Your task to perform on an android device: open app "Paramount+ | Peak Streaming" (install if not already installed) and enter user name: "fostered@yahoo.com" and password: "strong" Image 0: 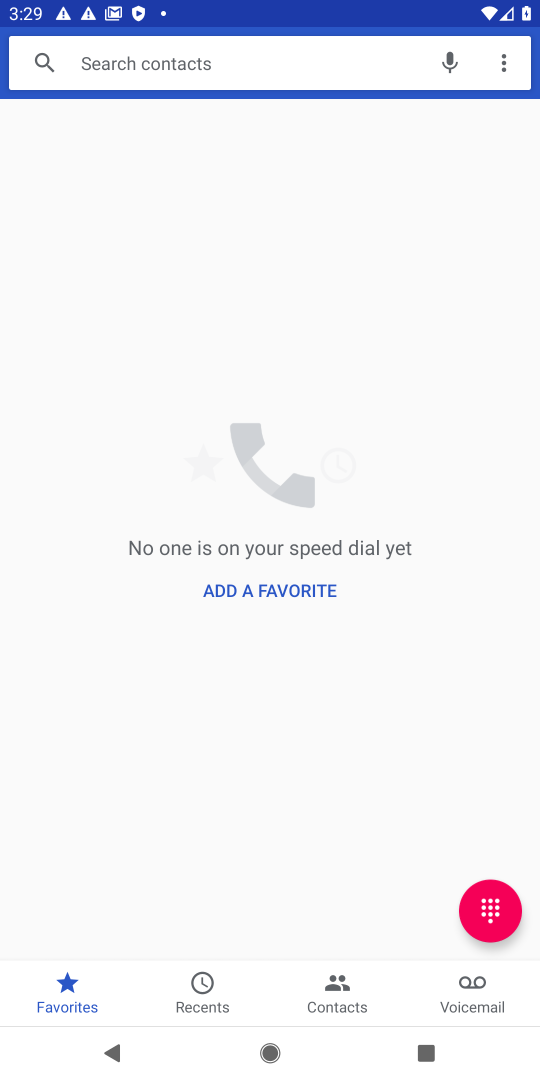
Step 0: press home button
Your task to perform on an android device: open app "Paramount+ | Peak Streaming" (install if not already installed) and enter user name: "fostered@yahoo.com" and password: "strong" Image 1: 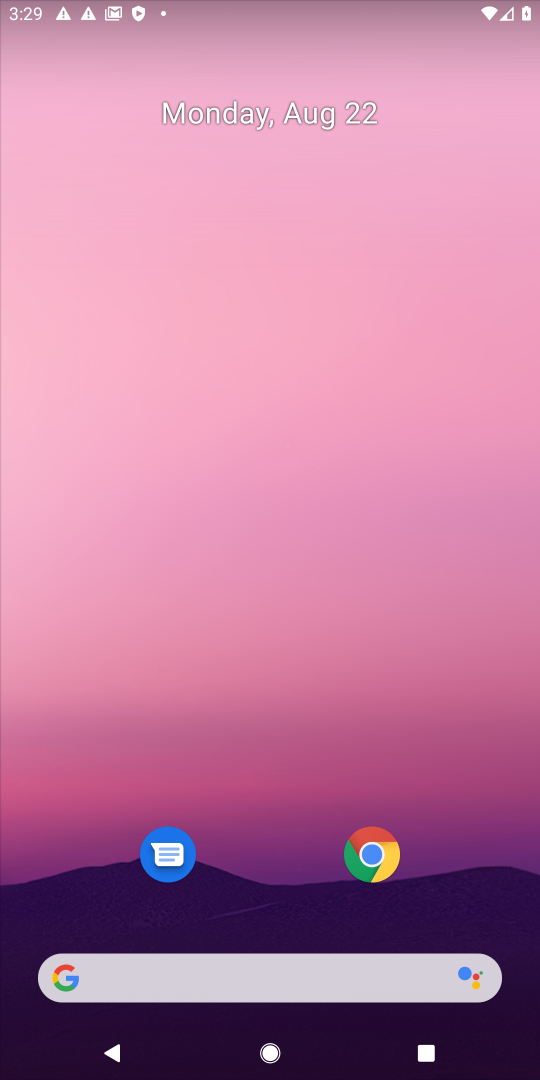
Step 1: drag from (274, 833) to (209, 55)
Your task to perform on an android device: open app "Paramount+ | Peak Streaming" (install if not already installed) and enter user name: "fostered@yahoo.com" and password: "strong" Image 2: 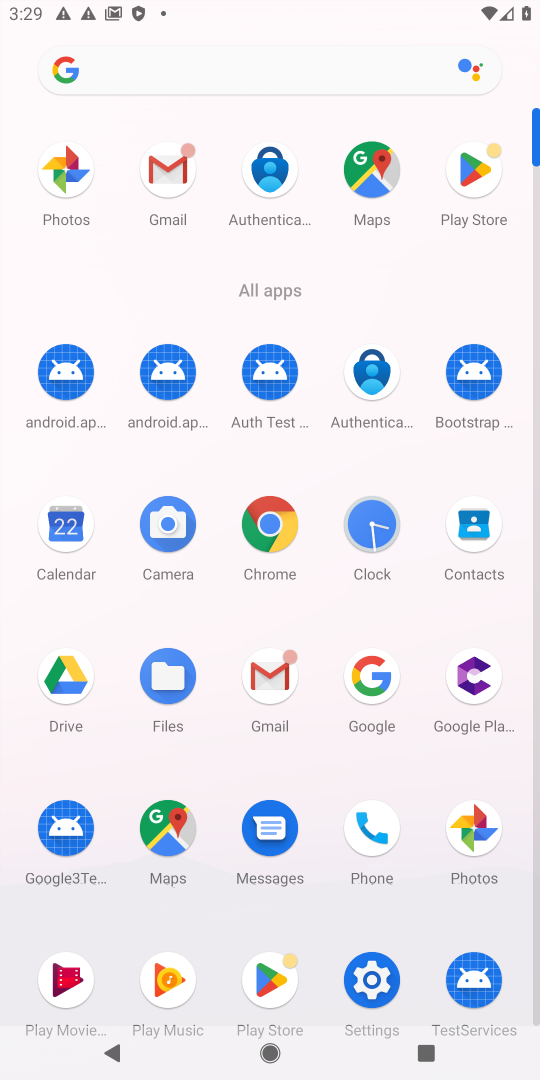
Step 2: click (475, 169)
Your task to perform on an android device: open app "Paramount+ | Peak Streaming" (install if not already installed) and enter user name: "fostered@yahoo.com" and password: "strong" Image 3: 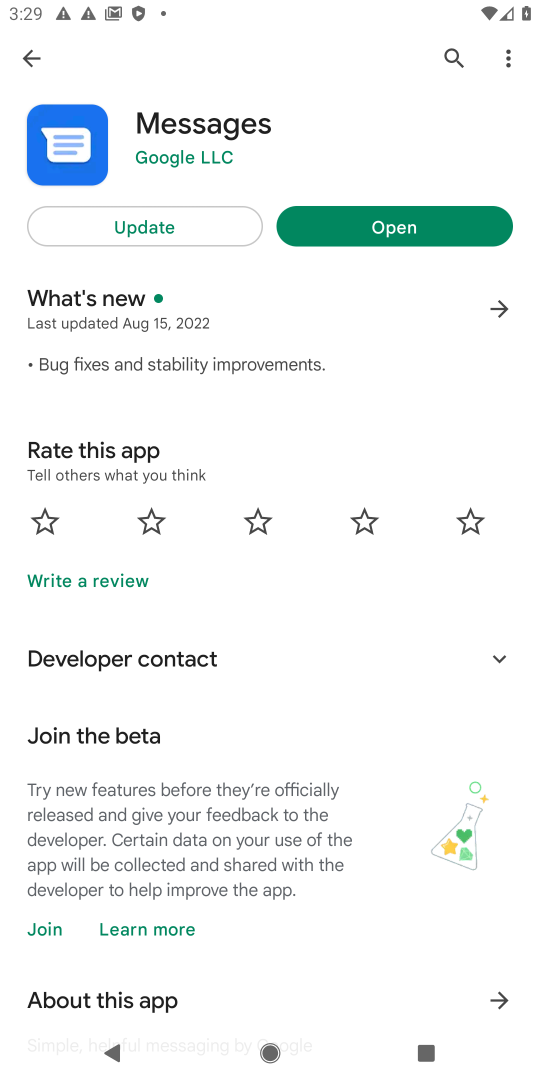
Step 3: click (448, 49)
Your task to perform on an android device: open app "Paramount+ | Peak Streaming" (install if not already installed) and enter user name: "fostered@yahoo.com" and password: "strong" Image 4: 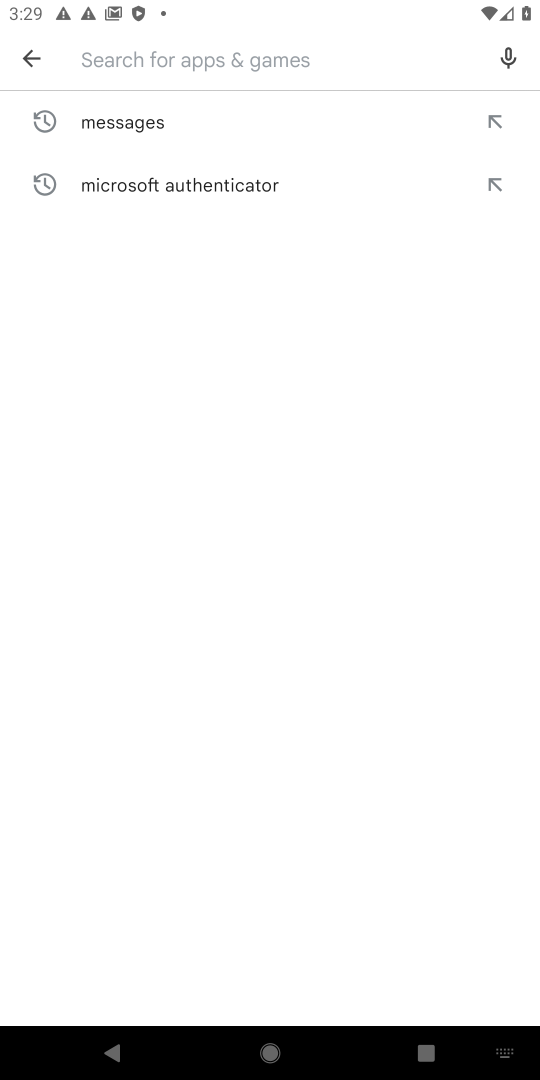
Step 4: type "Paramount+ | Peak Streaming"
Your task to perform on an android device: open app "Paramount+ | Peak Streaming" (install if not already installed) and enter user name: "fostered@yahoo.com" and password: "strong" Image 5: 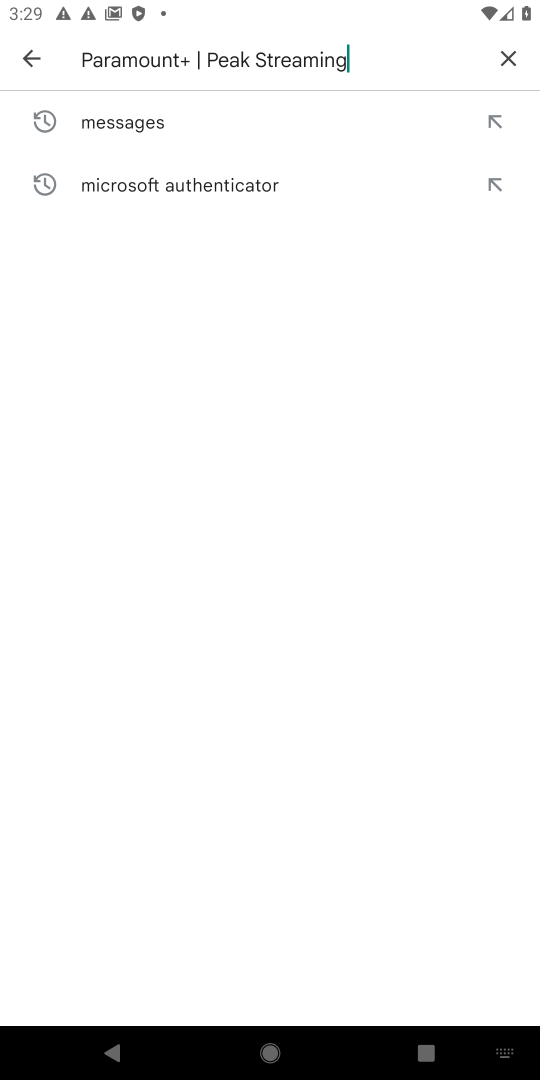
Step 5: type ""
Your task to perform on an android device: open app "Paramount+ | Peak Streaming" (install if not already installed) and enter user name: "fostered@yahoo.com" and password: "strong" Image 6: 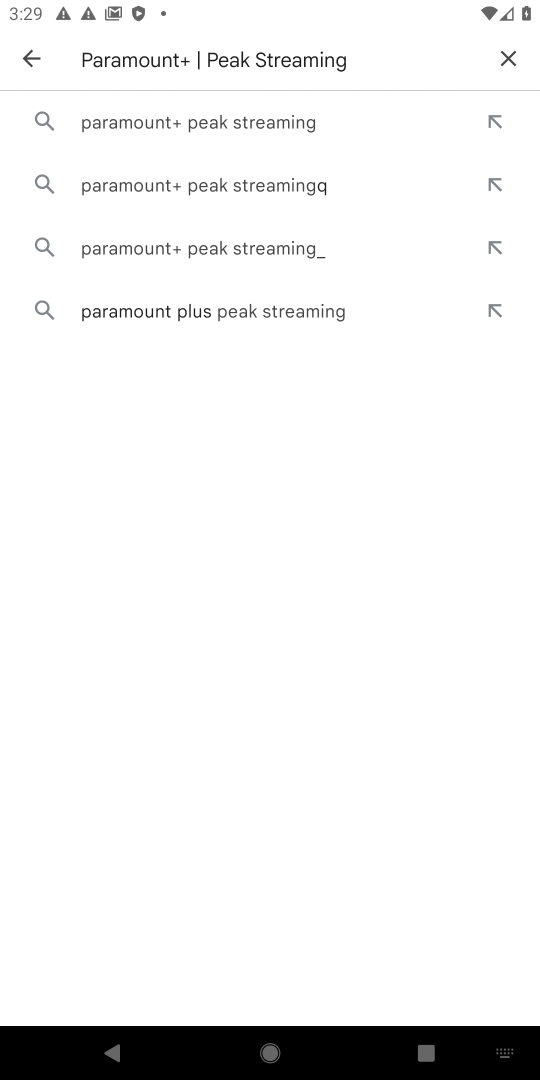
Step 6: click (283, 118)
Your task to perform on an android device: open app "Paramount+ | Peak Streaming" (install if not already installed) and enter user name: "fostered@yahoo.com" and password: "strong" Image 7: 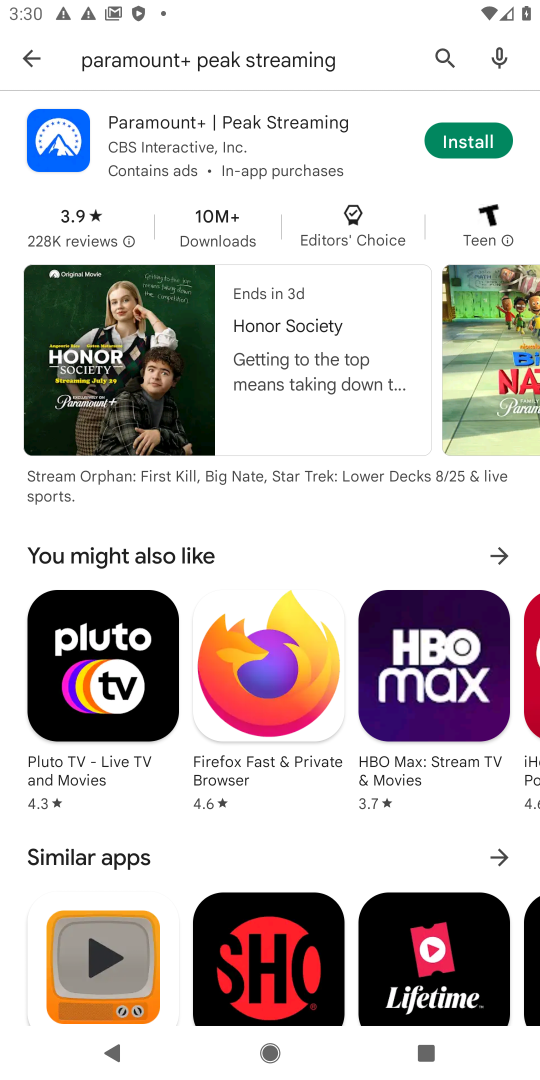
Step 7: click (469, 136)
Your task to perform on an android device: open app "Paramount+ | Peak Streaming" (install if not already installed) and enter user name: "fostered@yahoo.com" and password: "strong" Image 8: 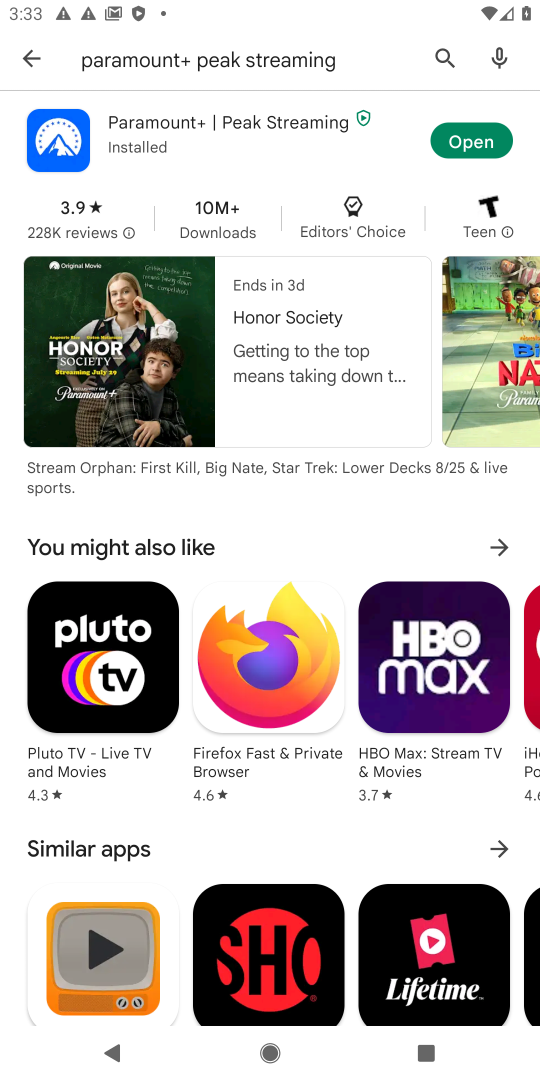
Step 8: click (462, 137)
Your task to perform on an android device: open app "Paramount+ | Peak Streaming" (install if not already installed) and enter user name: "fostered@yahoo.com" and password: "strong" Image 9: 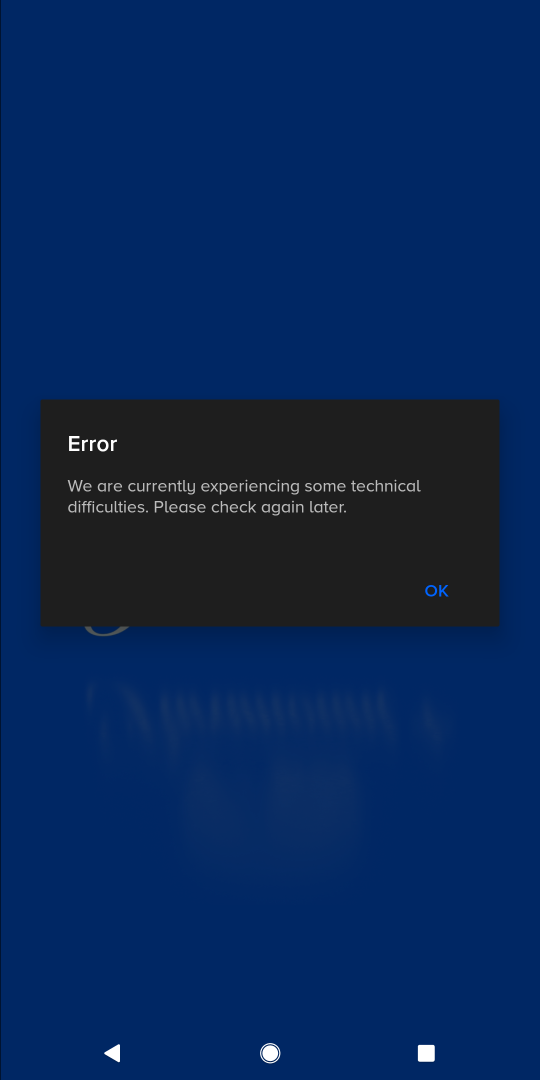
Step 9: click (439, 581)
Your task to perform on an android device: open app "Paramount+ | Peak Streaming" (install if not already installed) and enter user name: "fostered@yahoo.com" and password: "strong" Image 10: 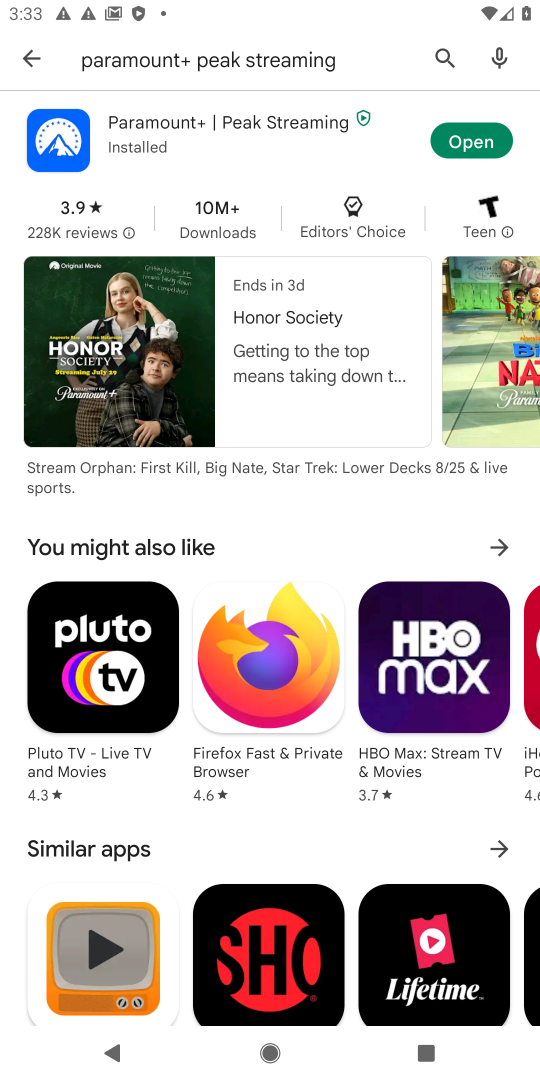
Step 10: task complete